Your task to perform on an android device: Search for "sony triple a" on target, select the first entry, and add it to the cart. Image 0: 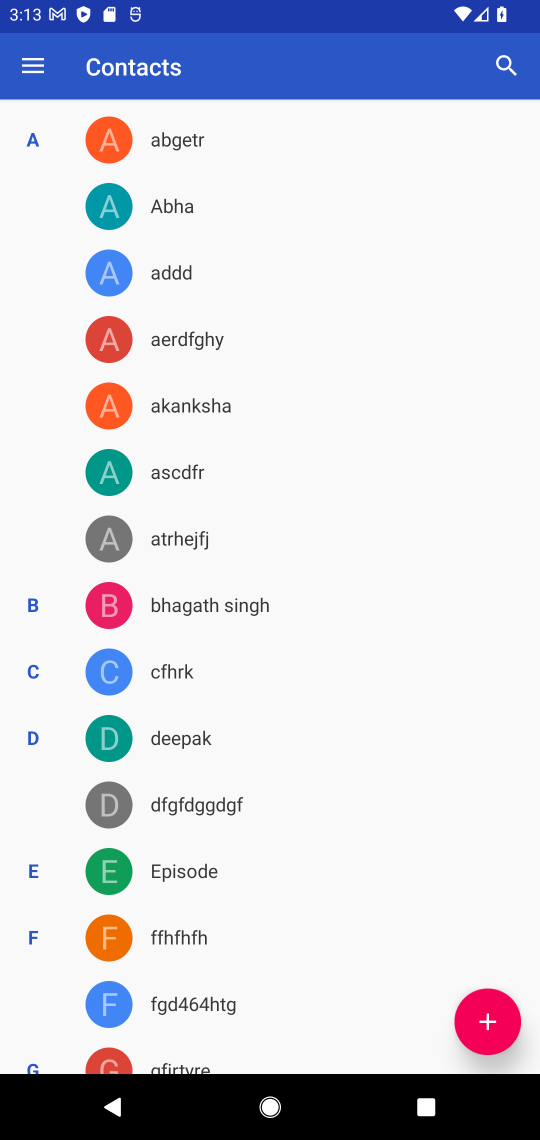
Step 0: press home button
Your task to perform on an android device: Search for "sony triple a" on target, select the first entry, and add it to the cart. Image 1: 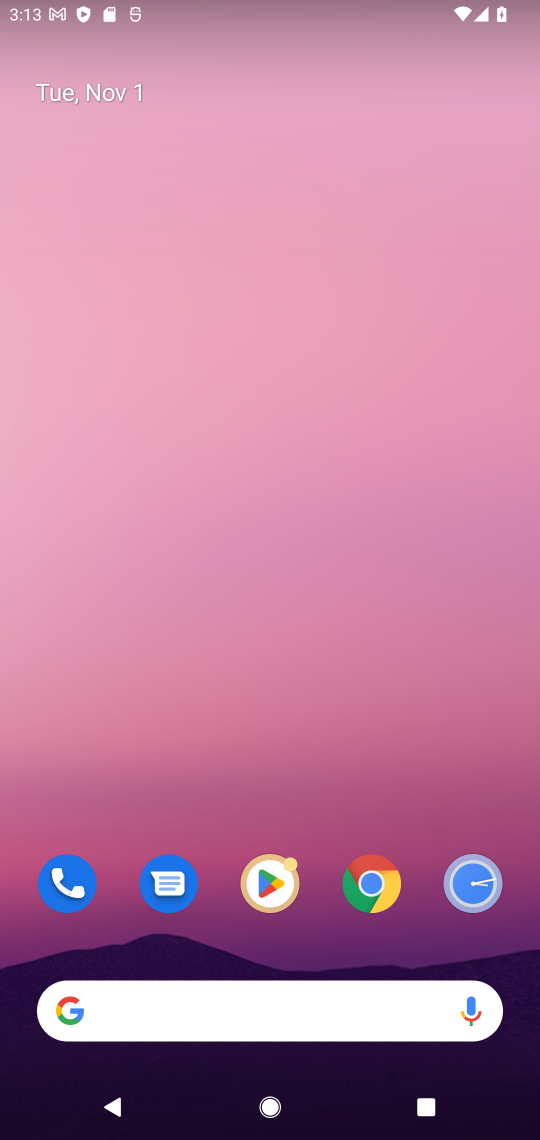
Step 1: click (378, 904)
Your task to perform on an android device: Search for "sony triple a" on target, select the first entry, and add it to the cart. Image 2: 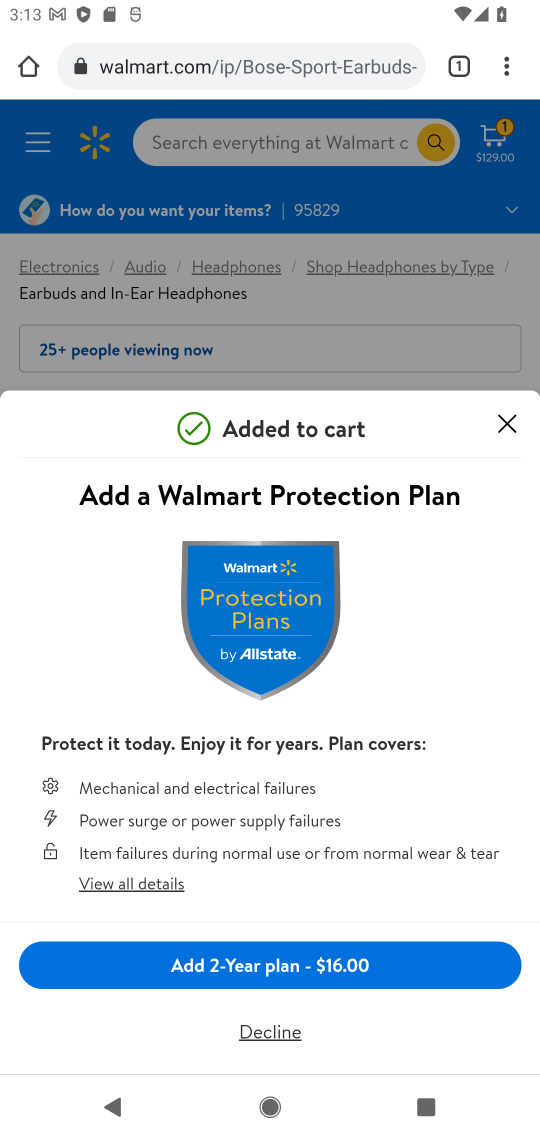
Step 2: click (457, 61)
Your task to perform on an android device: Search for "sony triple a" on target, select the first entry, and add it to the cart. Image 3: 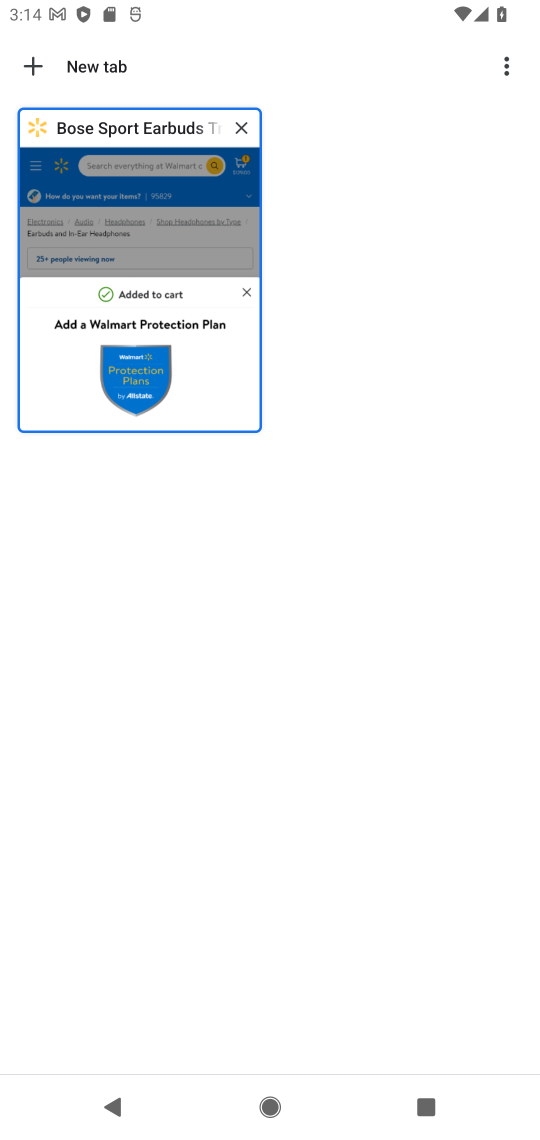
Step 3: click (28, 71)
Your task to perform on an android device: Search for "sony triple a" on target, select the first entry, and add it to the cart. Image 4: 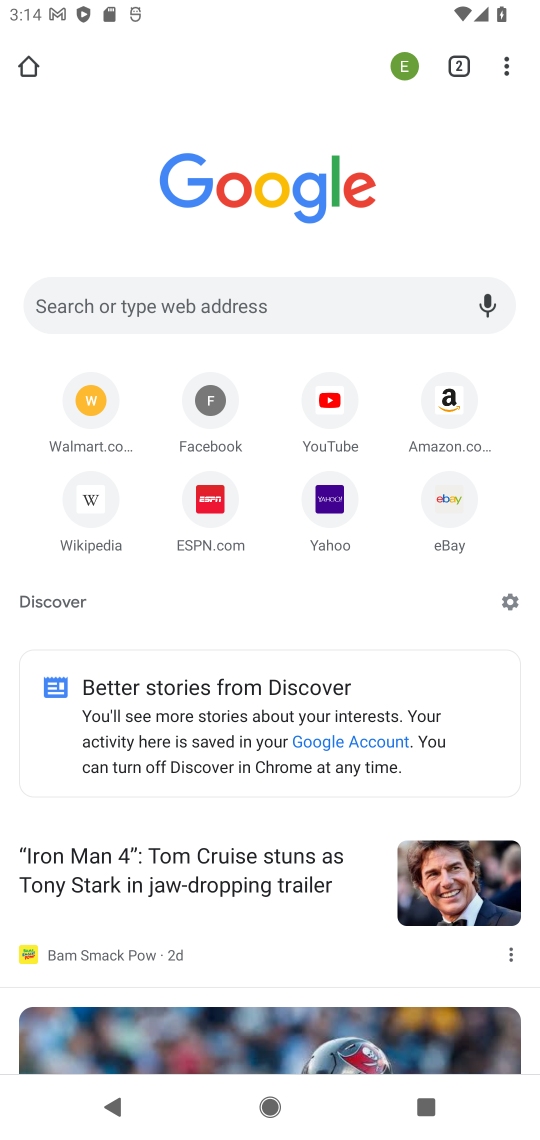
Step 4: click (108, 301)
Your task to perform on an android device: Search for "sony triple a" on target, select the first entry, and add it to the cart. Image 5: 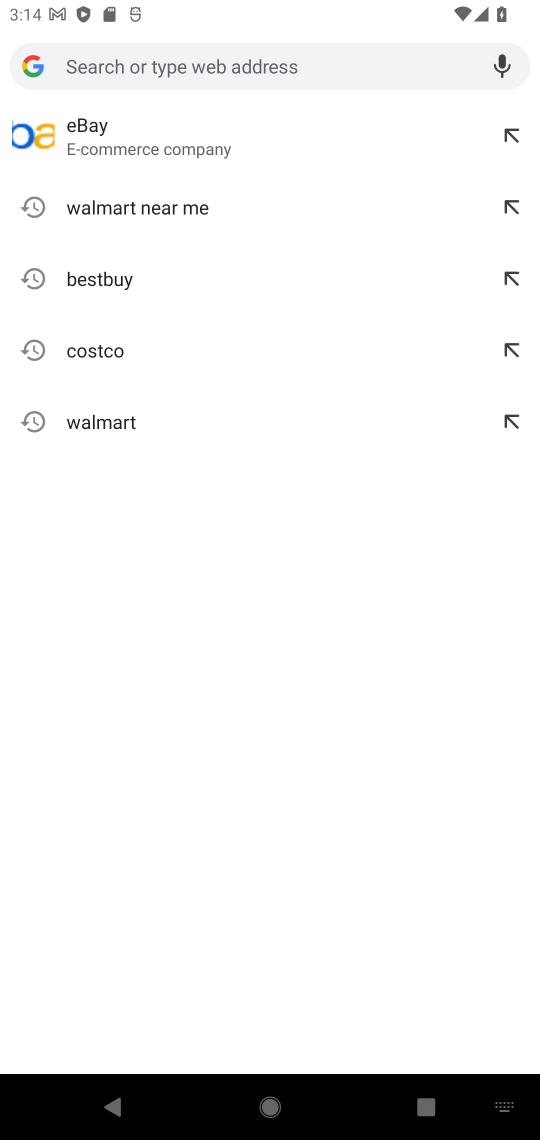
Step 5: type "sony triple "
Your task to perform on an android device: Search for "sony triple a" on target, select the first entry, and add it to the cart. Image 6: 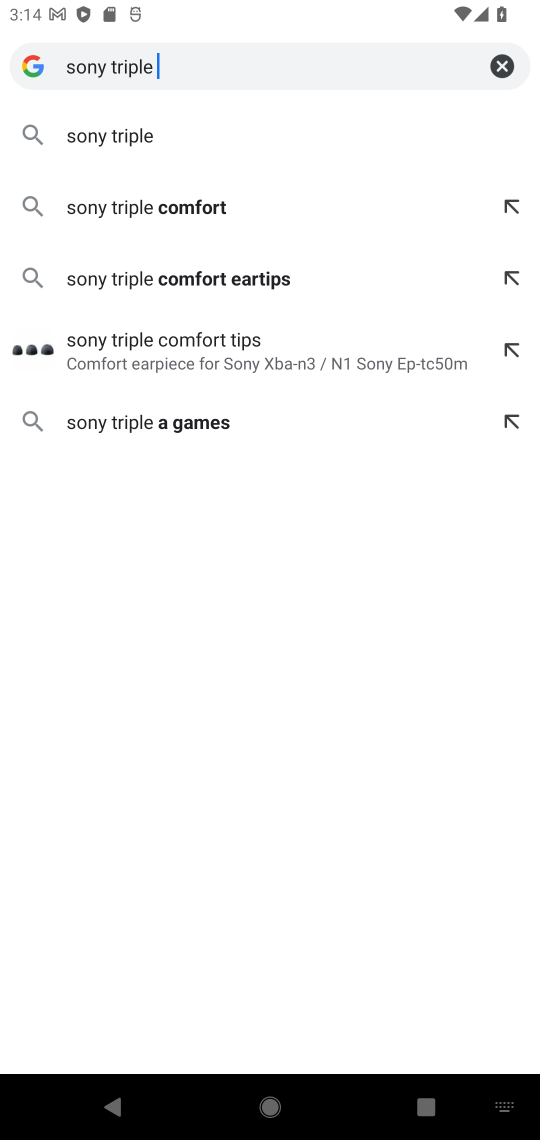
Step 6: click (90, 129)
Your task to perform on an android device: Search for "sony triple a" on target, select the first entry, and add it to the cart. Image 7: 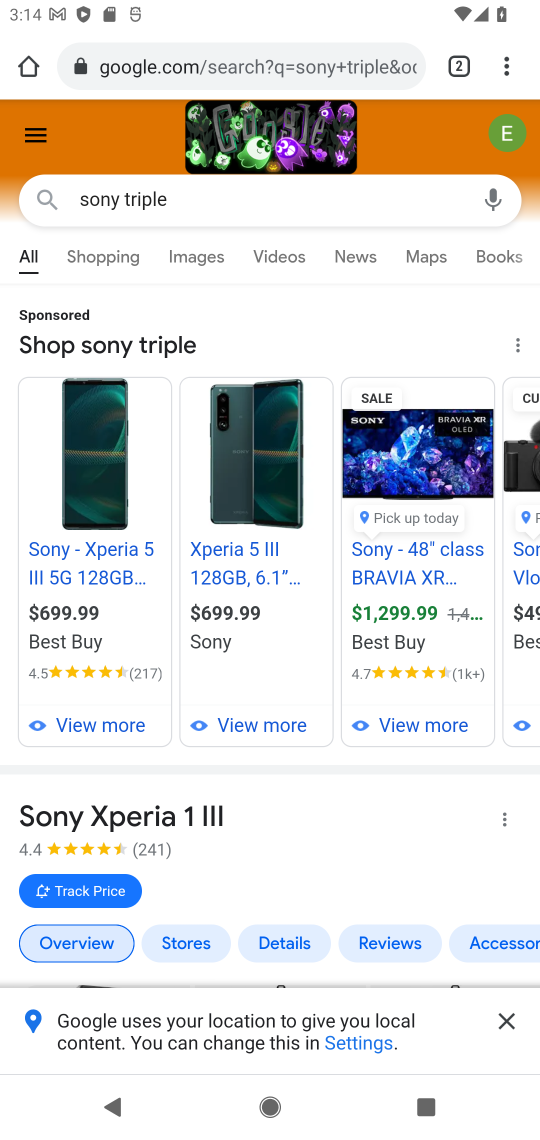
Step 7: click (40, 200)
Your task to perform on an android device: Search for "sony triple a" on target, select the first entry, and add it to the cart. Image 8: 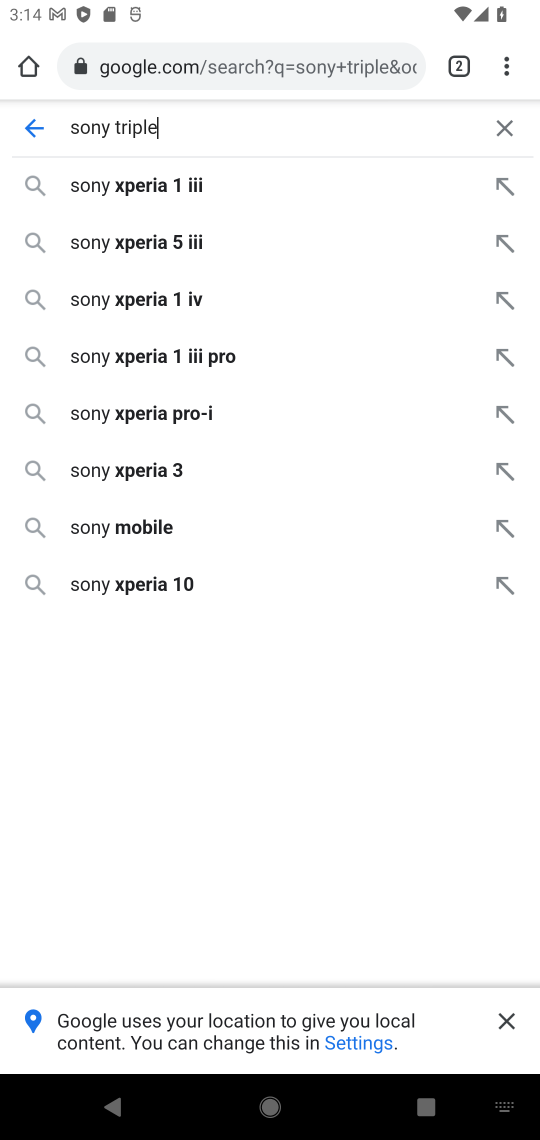
Step 8: click (501, 130)
Your task to perform on an android device: Search for "sony triple a" on target, select the first entry, and add it to the cart. Image 9: 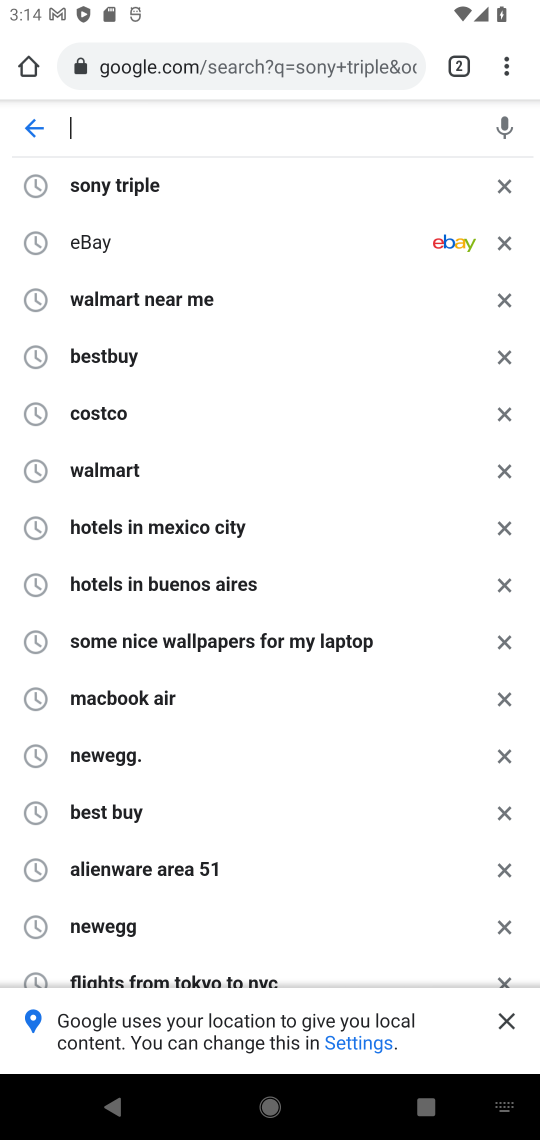
Step 9: type "target"
Your task to perform on an android device: Search for "sony triple a" on target, select the first entry, and add it to the cart. Image 10: 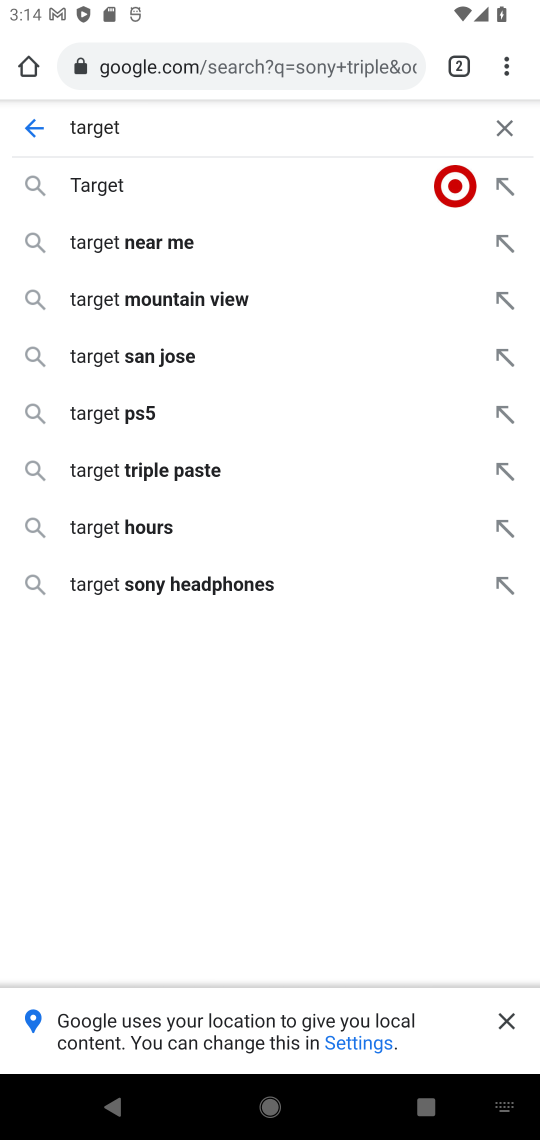
Step 10: click (444, 175)
Your task to perform on an android device: Search for "sony triple a" on target, select the first entry, and add it to the cart. Image 11: 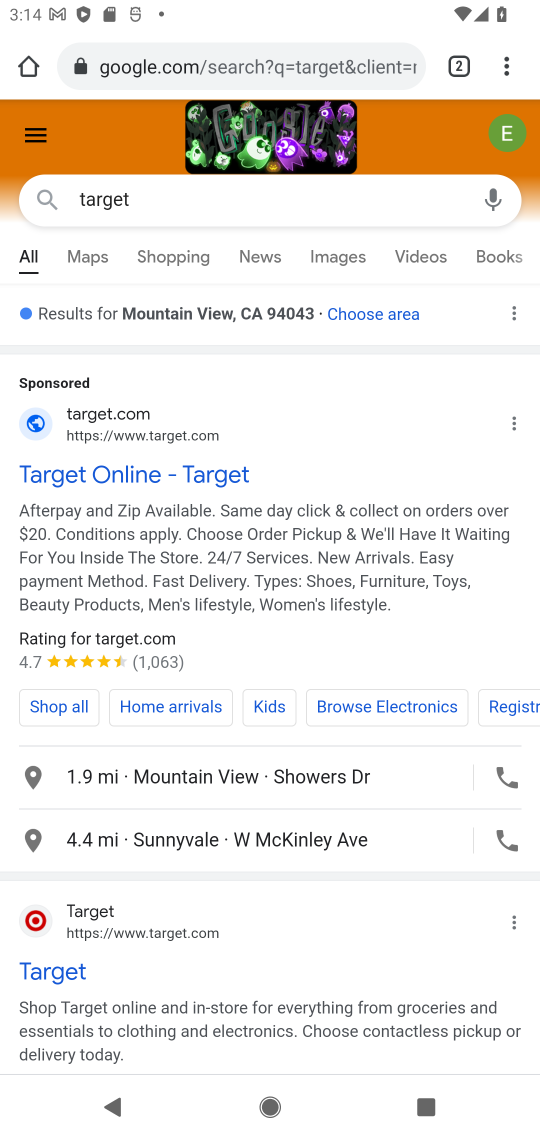
Step 11: click (44, 980)
Your task to perform on an android device: Search for "sony triple a" on target, select the first entry, and add it to the cart. Image 12: 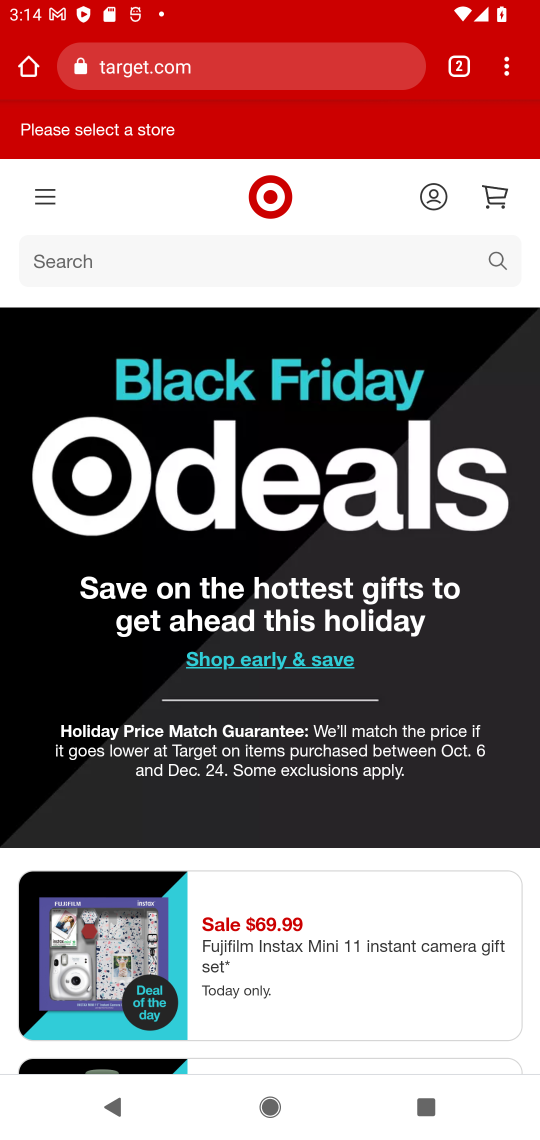
Step 12: click (279, 261)
Your task to perform on an android device: Search for "sony triple a" on target, select the first entry, and add it to the cart. Image 13: 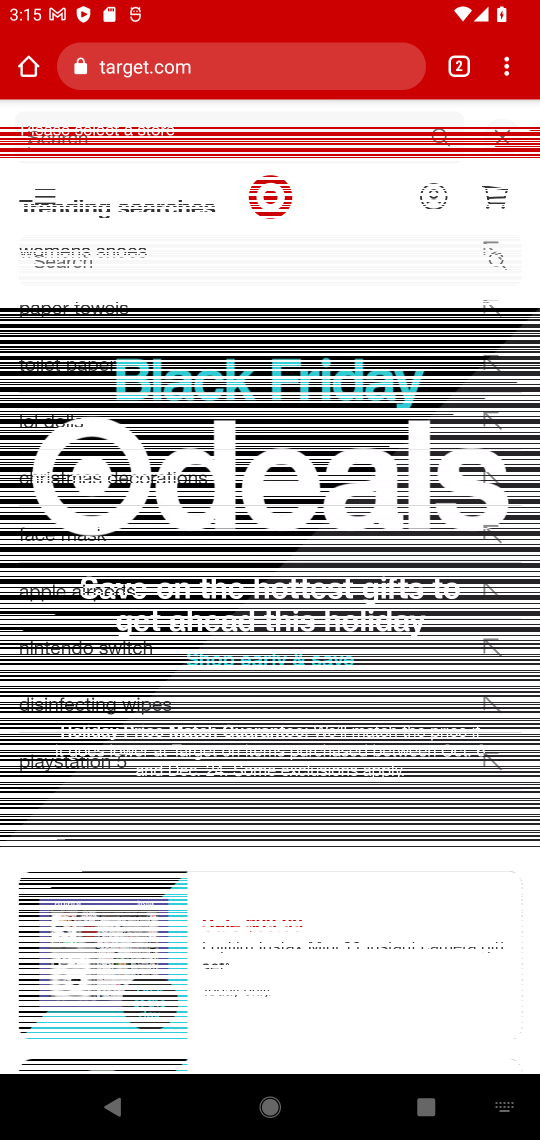
Step 13: type "sony triple a"
Your task to perform on an android device: Search for "sony triple a" on target, select the first entry, and add it to the cart. Image 14: 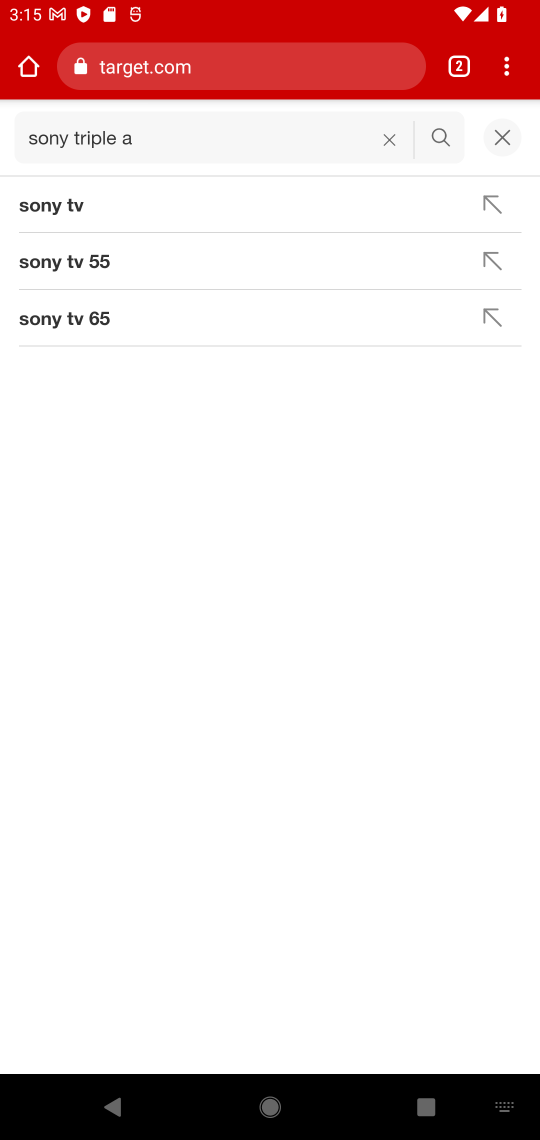
Step 14: click (38, 204)
Your task to perform on an android device: Search for "sony triple a" on target, select the first entry, and add it to the cart. Image 15: 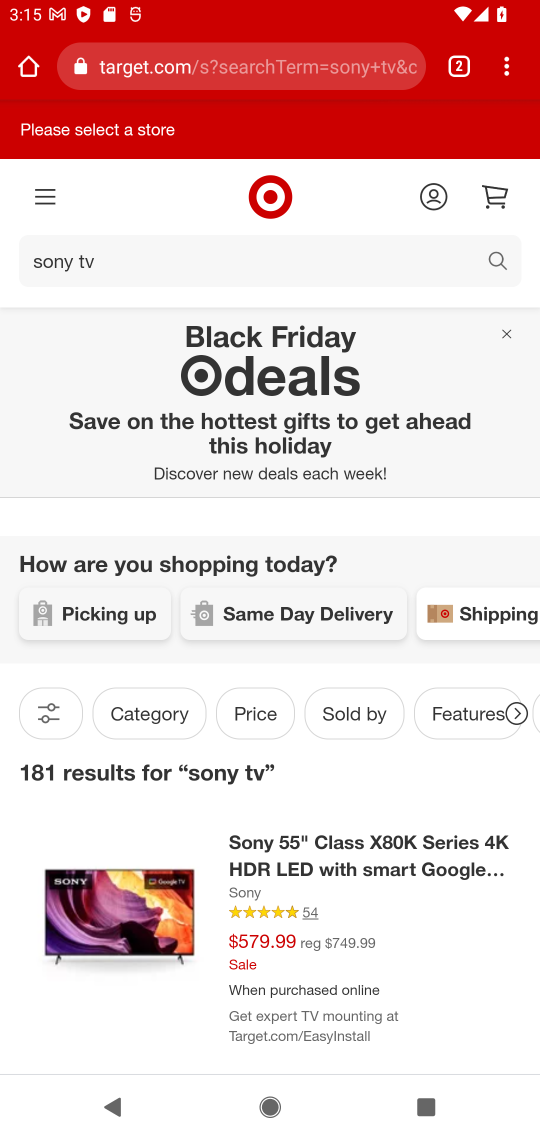
Step 15: drag from (387, 940) to (436, 334)
Your task to perform on an android device: Search for "sony triple a" on target, select the first entry, and add it to the cart. Image 16: 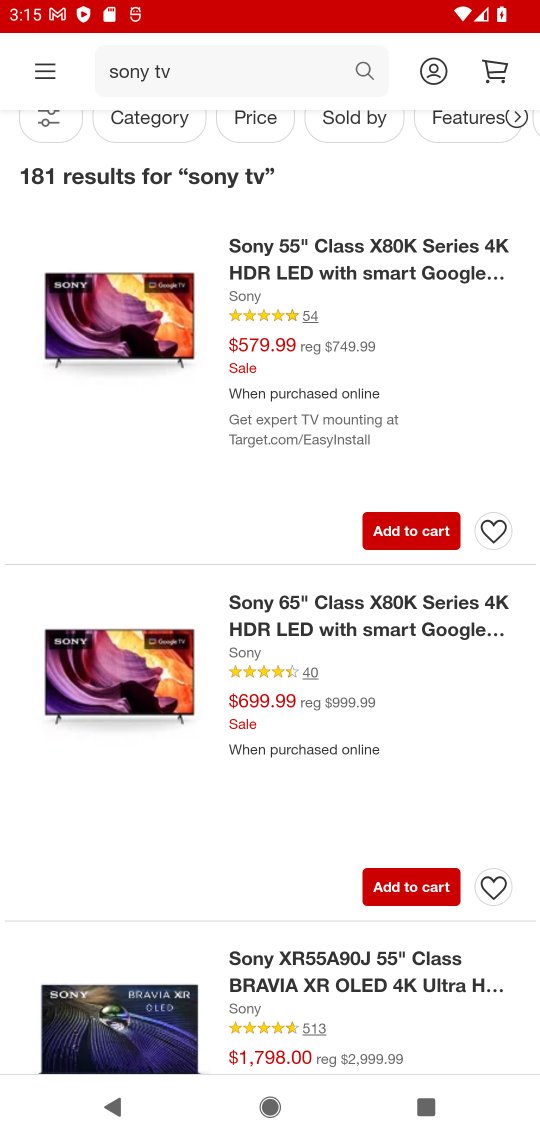
Step 16: click (411, 883)
Your task to perform on an android device: Search for "sony triple a" on target, select the first entry, and add it to the cart. Image 17: 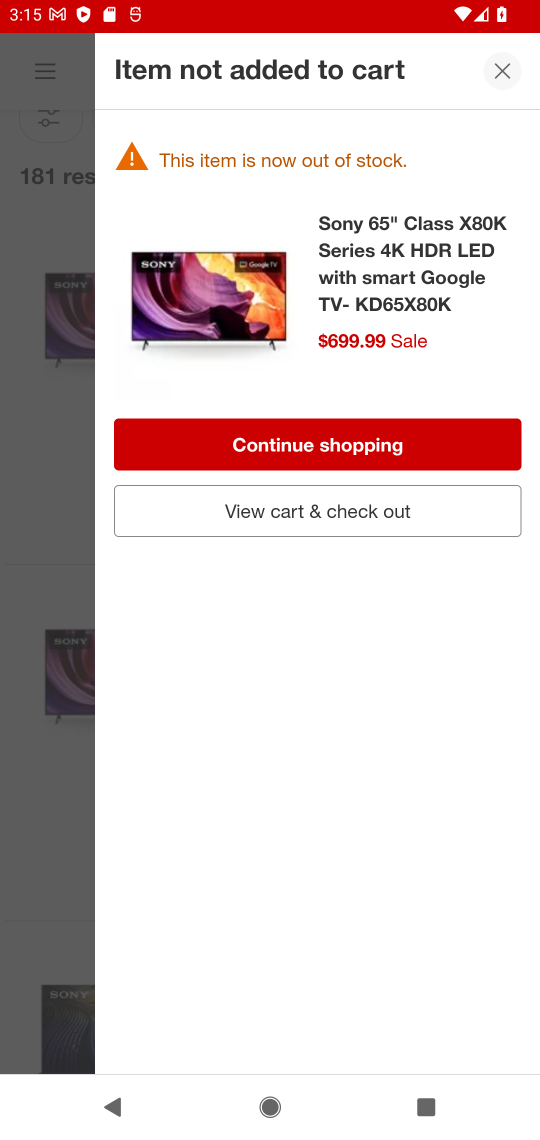
Step 17: task complete